Your task to perform on an android device: Go to internet settings Image 0: 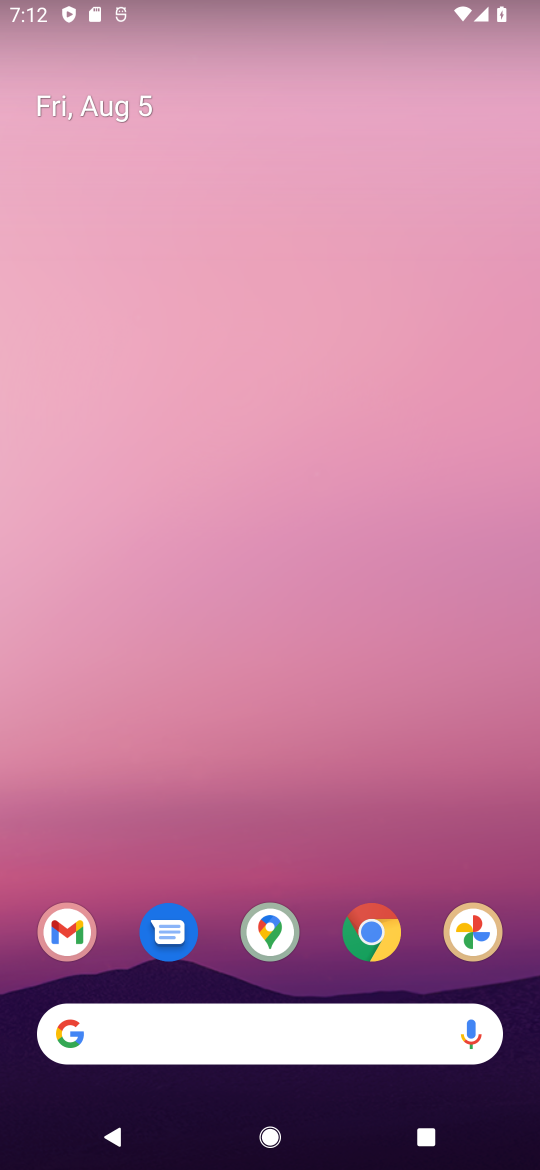
Step 0: drag from (265, 815) to (295, 48)
Your task to perform on an android device: Go to internet settings Image 1: 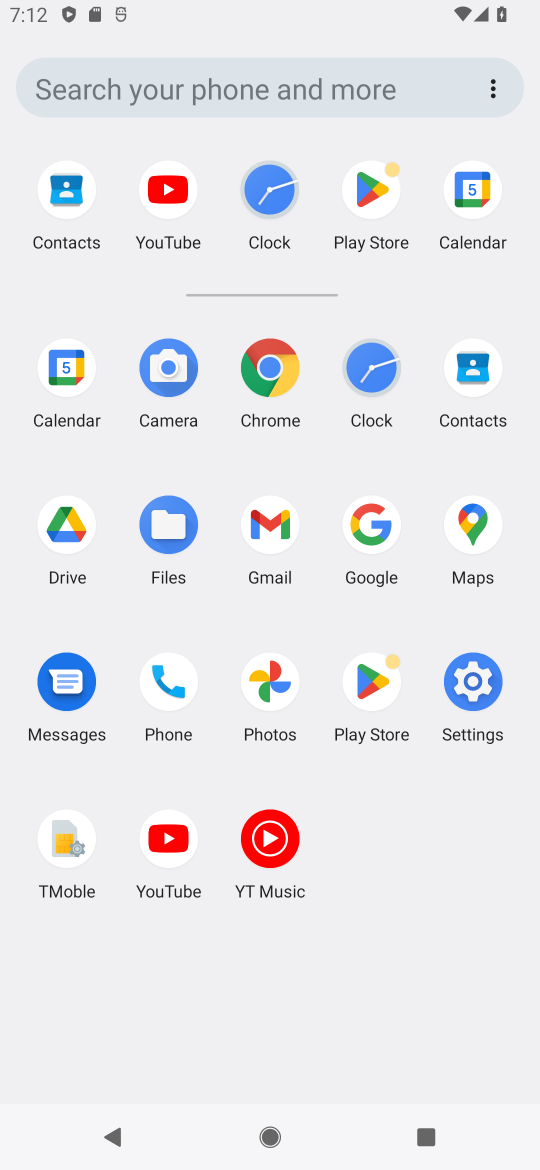
Step 1: click (476, 666)
Your task to perform on an android device: Go to internet settings Image 2: 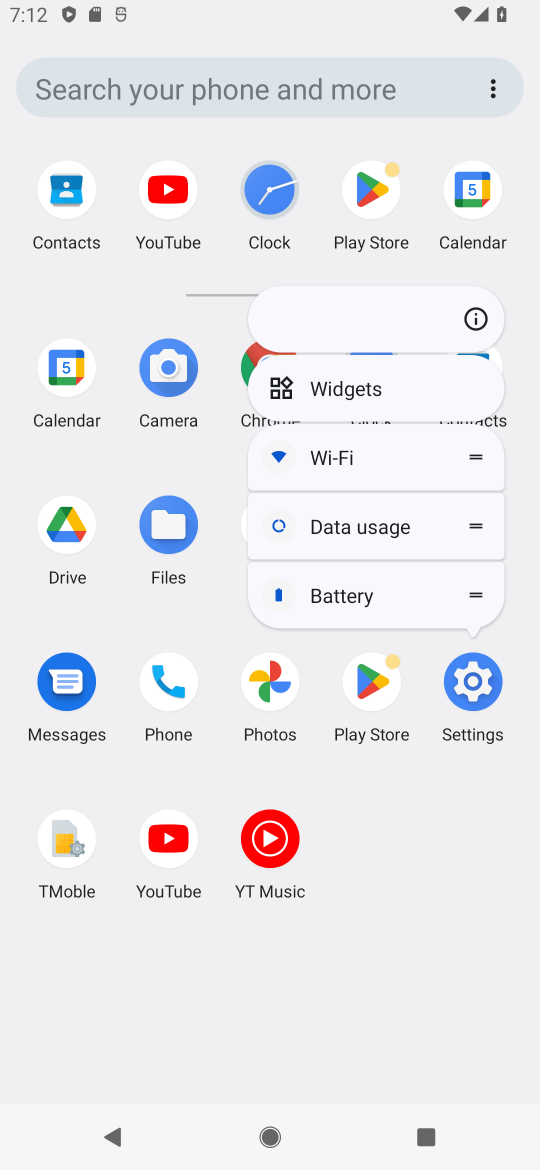
Step 2: click (483, 683)
Your task to perform on an android device: Go to internet settings Image 3: 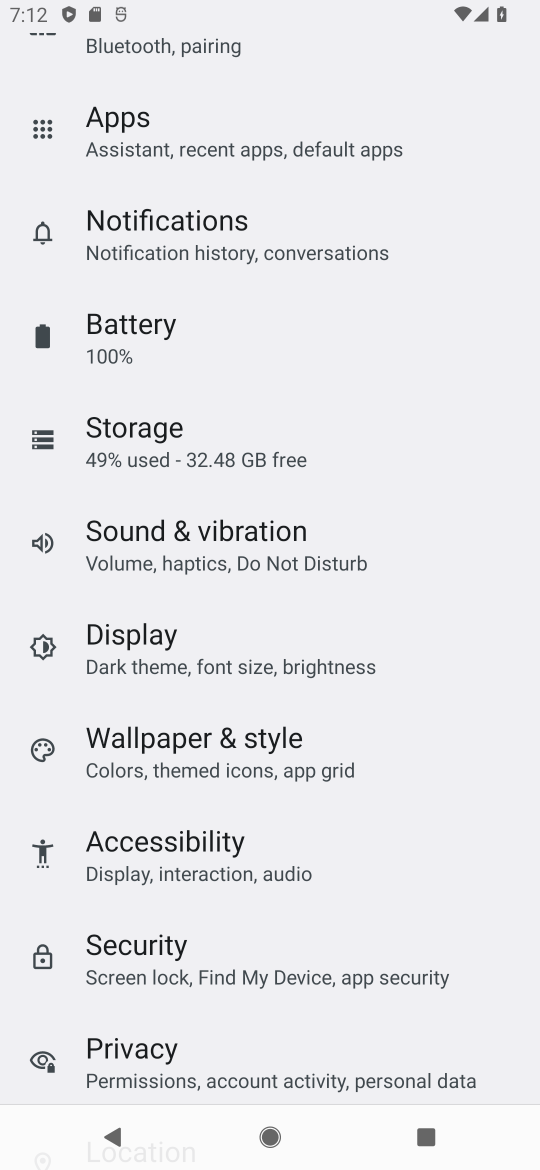
Step 3: drag from (353, 206) to (311, 748)
Your task to perform on an android device: Go to internet settings Image 4: 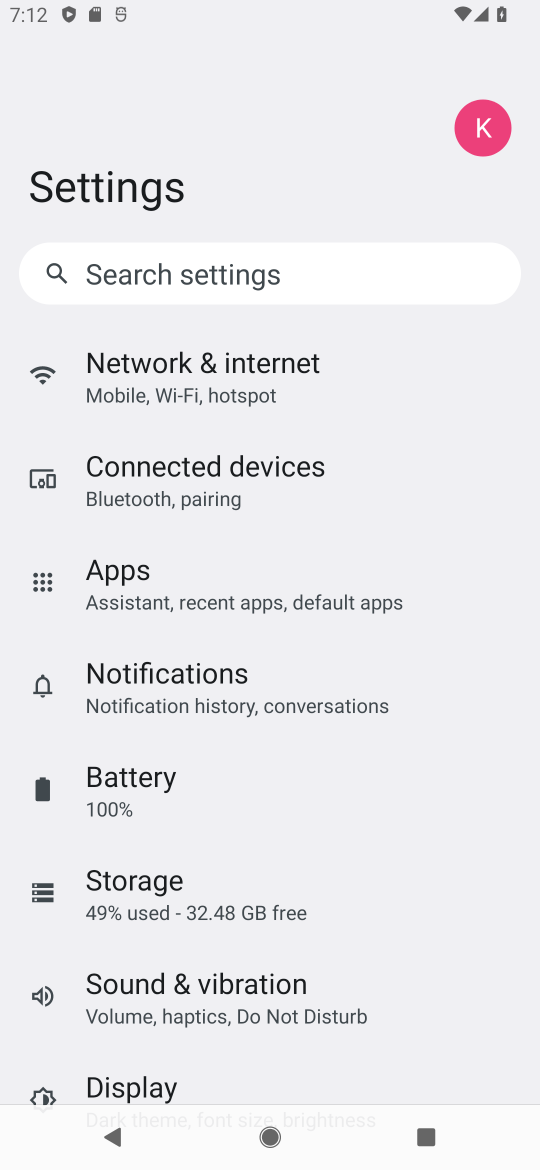
Step 4: click (183, 367)
Your task to perform on an android device: Go to internet settings Image 5: 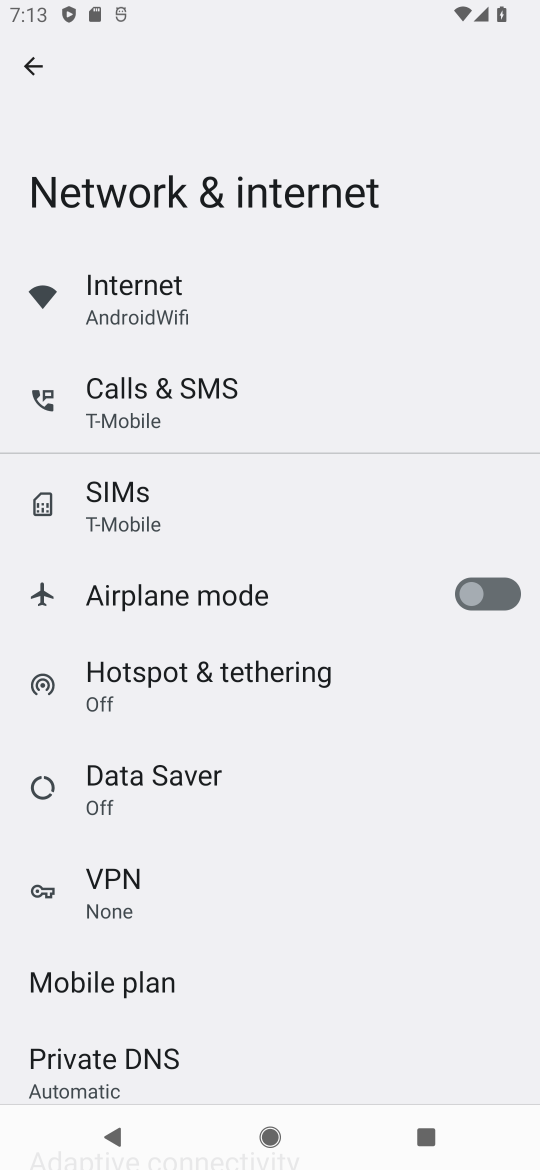
Step 5: click (230, 306)
Your task to perform on an android device: Go to internet settings Image 6: 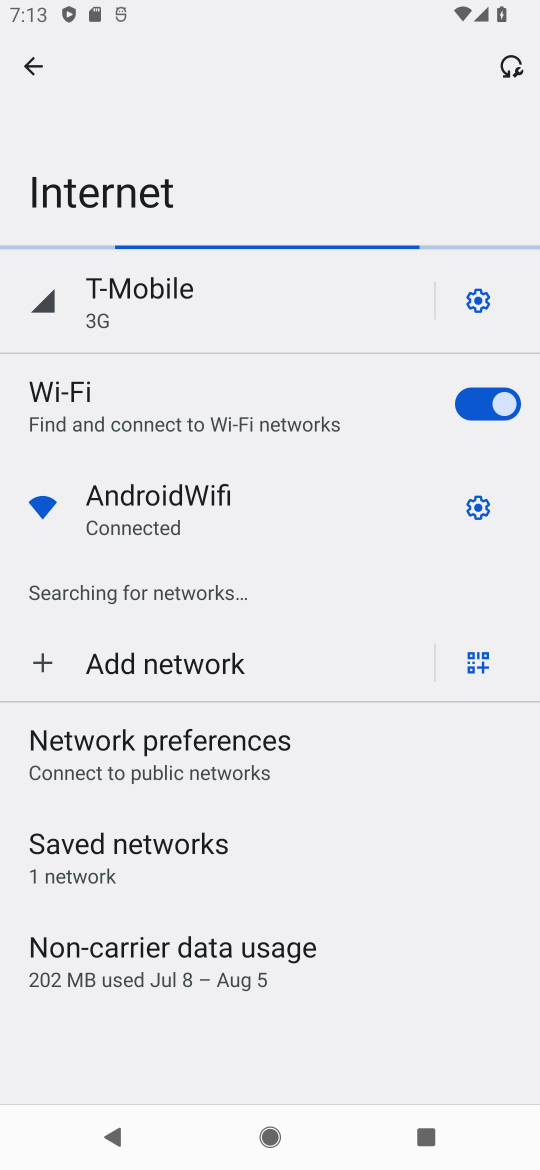
Step 6: task complete